Your task to perform on an android device: Show me popular videos on Youtube Image 0: 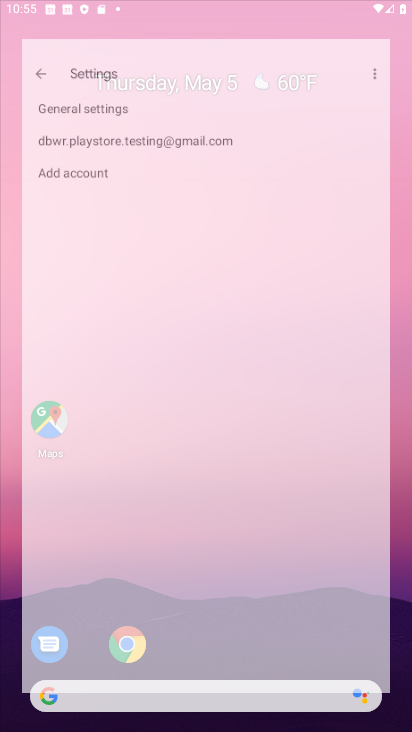
Step 0: drag from (219, 662) to (220, 5)
Your task to perform on an android device: Show me popular videos on Youtube Image 1: 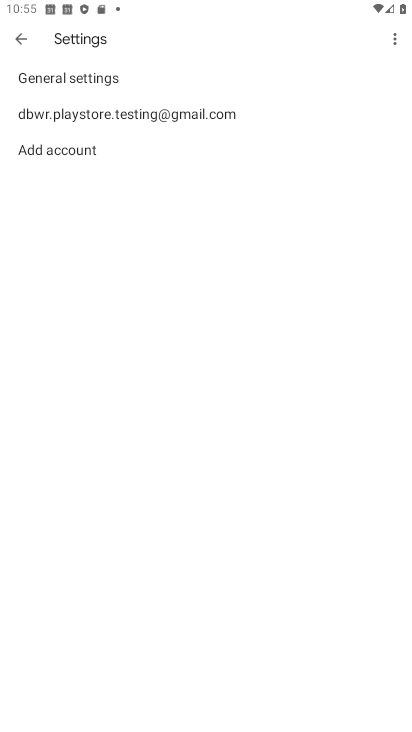
Step 1: press home button
Your task to perform on an android device: Show me popular videos on Youtube Image 2: 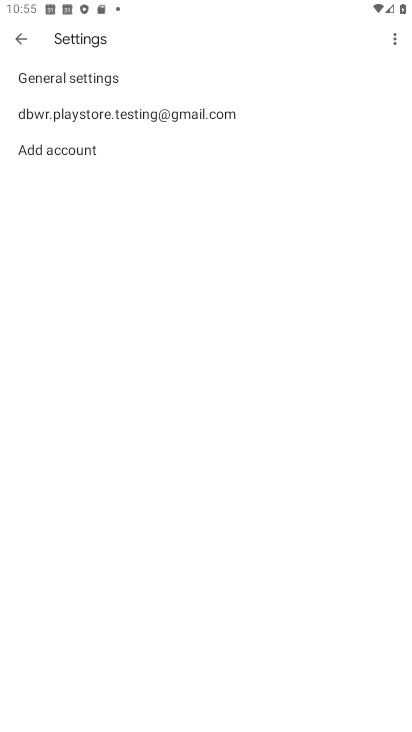
Step 2: press home button
Your task to perform on an android device: Show me popular videos on Youtube Image 3: 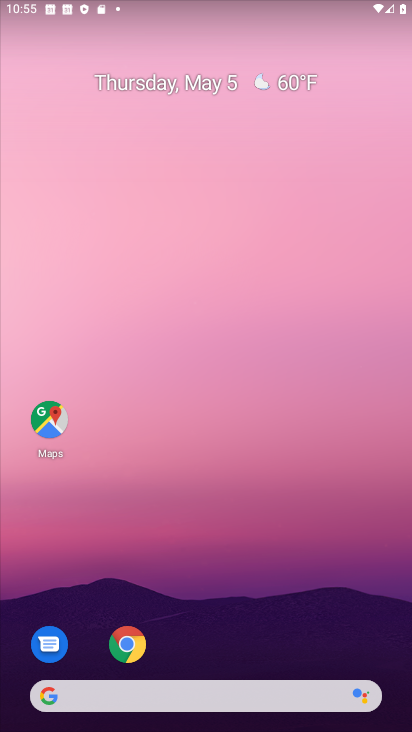
Step 3: drag from (191, 644) to (223, 36)
Your task to perform on an android device: Show me popular videos on Youtube Image 4: 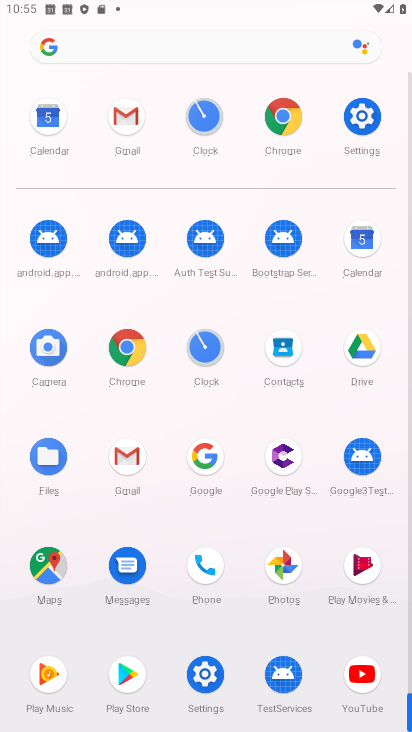
Step 4: click (366, 673)
Your task to perform on an android device: Show me popular videos on Youtube Image 5: 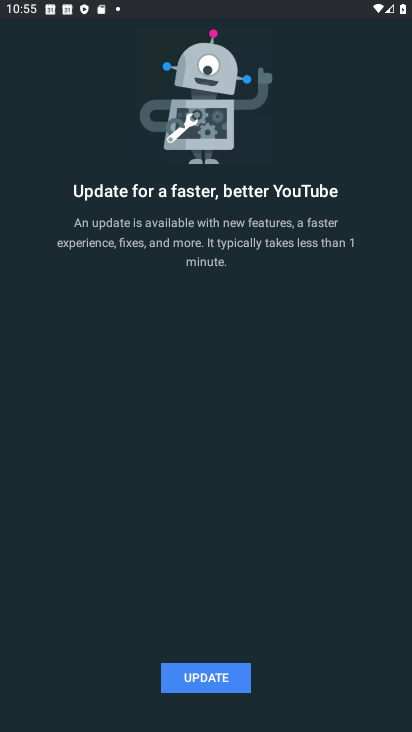
Step 5: press home button
Your task to perform on an android device: Show me popular videos on Youtube Image 6: 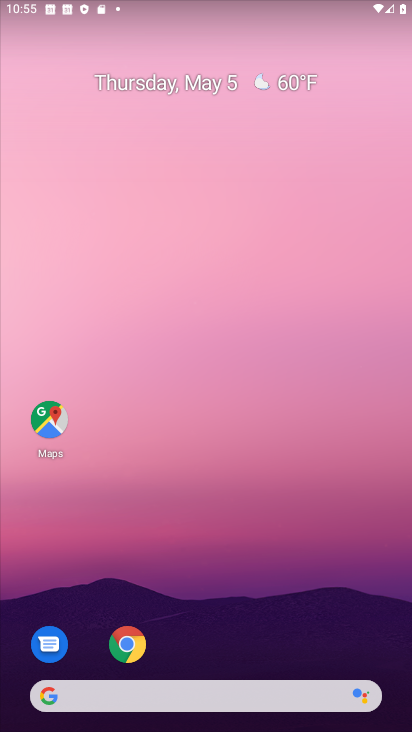
Step 6: drag from (205, 666) to (278, 74)
Your task to perform on an android device: Show me popular videos on Youtube Image 7: 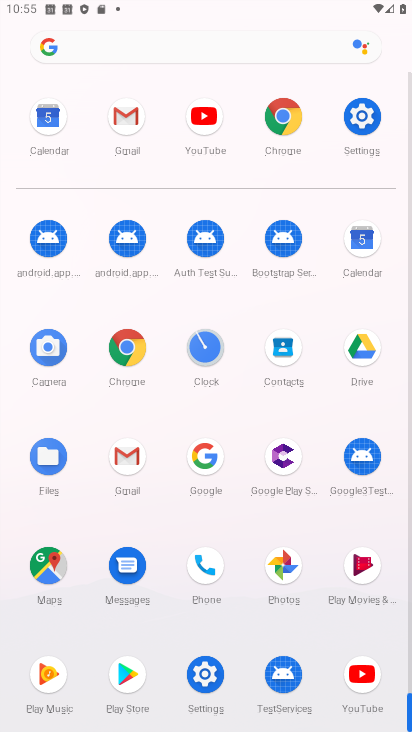
Step 7: click (361, 672)
Your task to perform on an android device: Show me popular videos on Youtube Image 8: 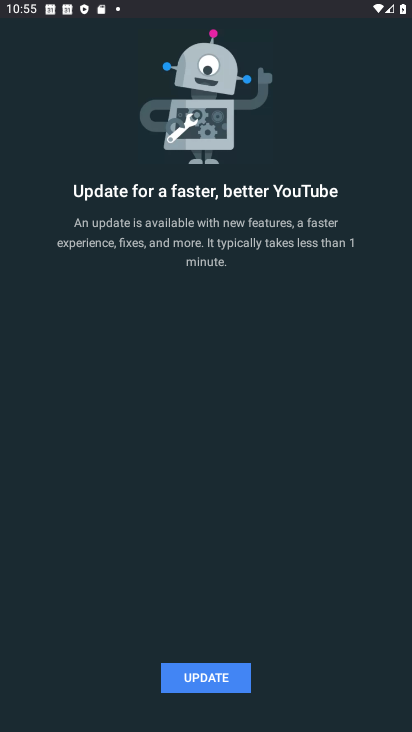
Step 8: click (217, 683)
Your task to perform on an android device: Show me popular videos on Youtube Image 9: 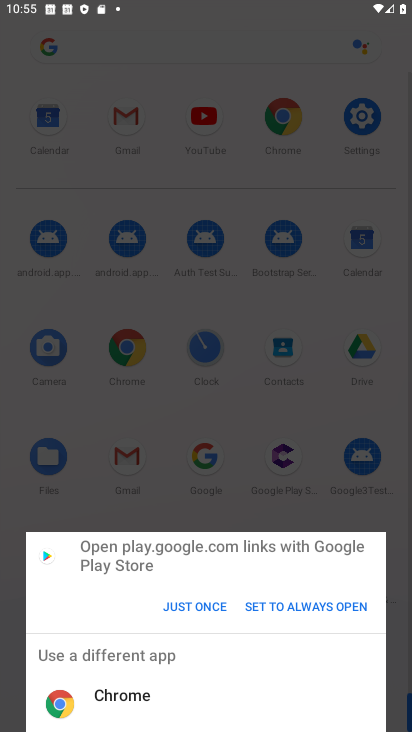
Step 9: click (109, 559)
Your task to perform on an android device: Show me popular videos on Youtube Image 10: 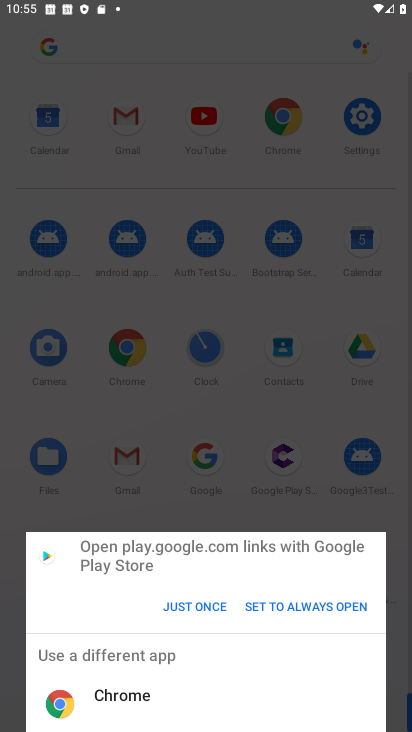
Step 10: click (281, 601)
Your task to perform on an android device: Show me popular videos on Youtube Image 11: 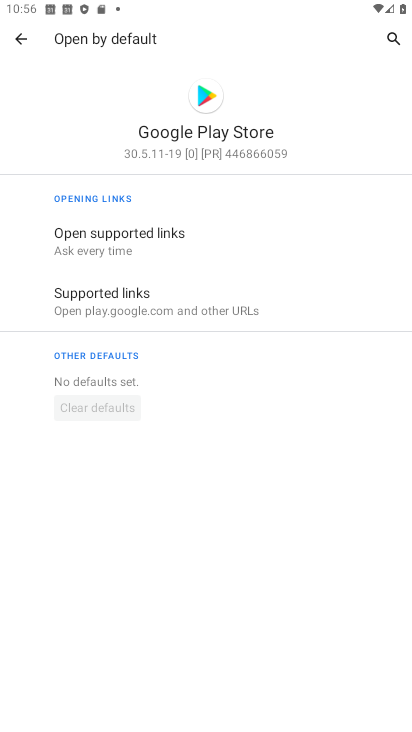
Step 11: drag from (202, 498) to (266, 26)
Your task to perform on an android device: Show me popular videos on Youtube Image 12: 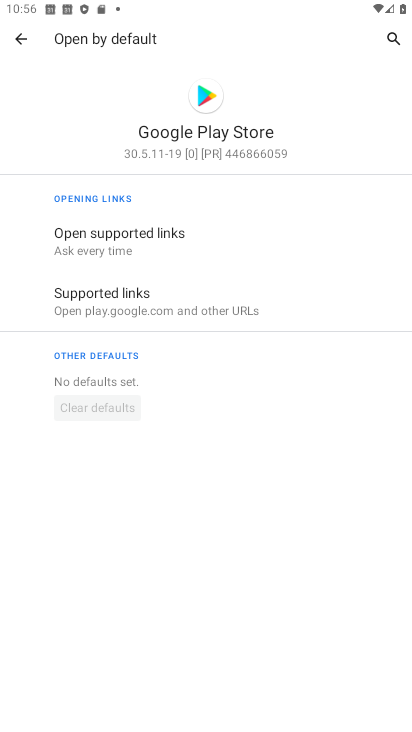
Step 12: drag from (181, 541) to (211, 254)
Your task to perform on an android device: Show me popular videos on Youtube Image 13: 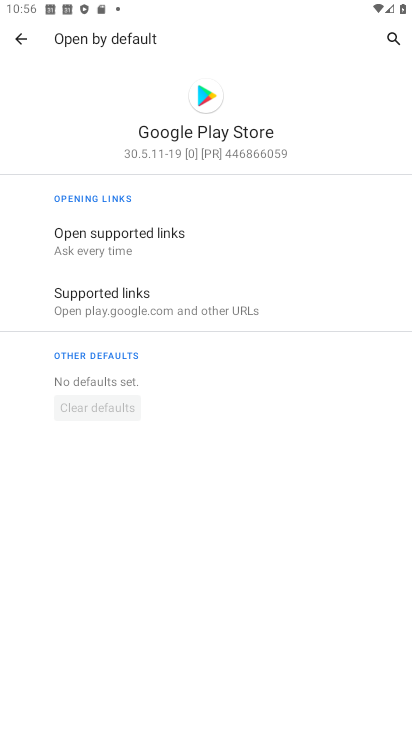
Step 13: drag from (161, 436) to (219, 223)
Your task to perform on an android device: Show me popular videos on Youtube Image 14: 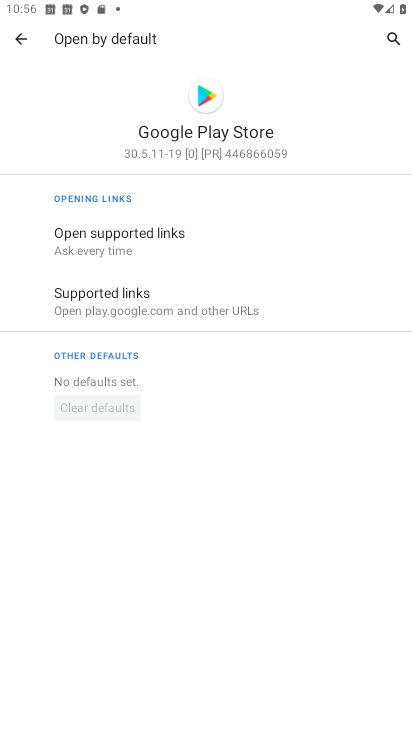
Step 14: drag from (268, 514) to (275, 245)
Your task to perform on an android device: Show me popular videos on Youtube Image 15: 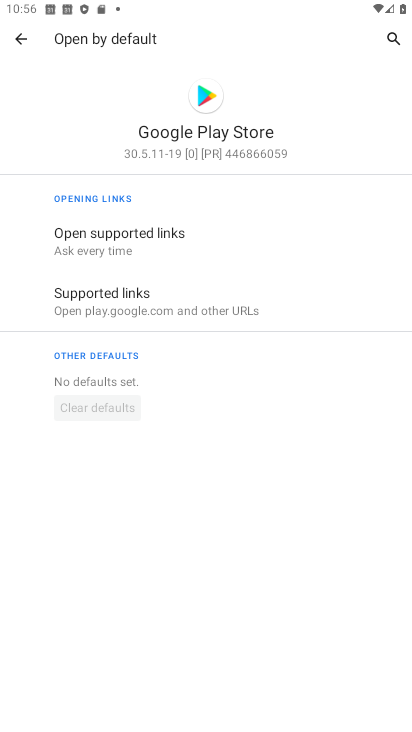
Step 15: press home button
Your task to perform on an android device: Show me popular videos on Youtube Image 16: 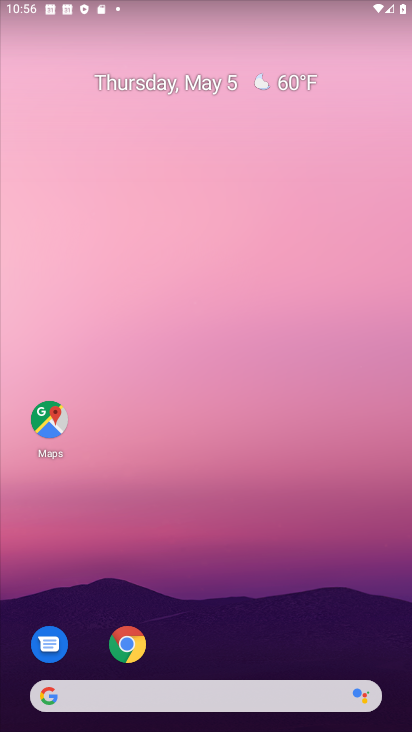
Step 16: drag from (178, 656) to (252, 50)
Your task to perform on an android device: Show me popular videos on Youtube Image 17: 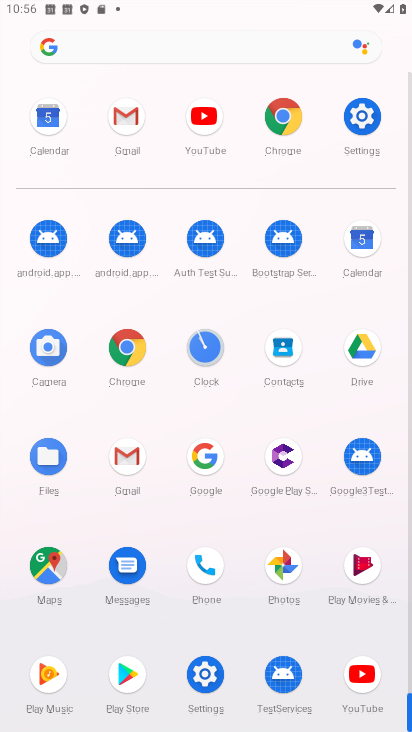
Step 17: click (355, 671)
Your task to perform on an android device: Show me popular videos on Youtube Image 18: 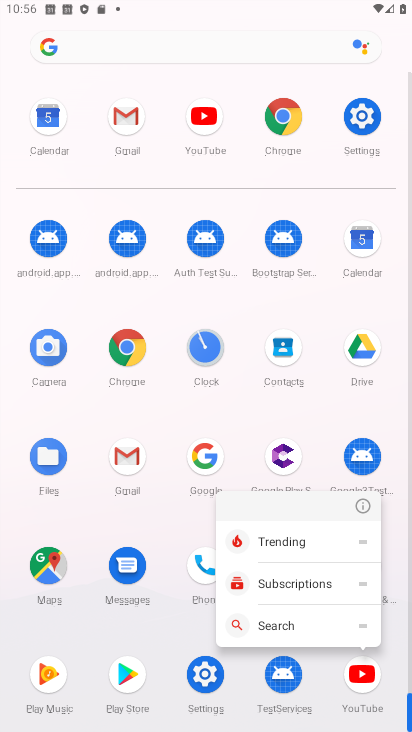
Step 18: click (363, 507)
Your task to perform on an android device: Show me popular videos on Youtube Image 19: 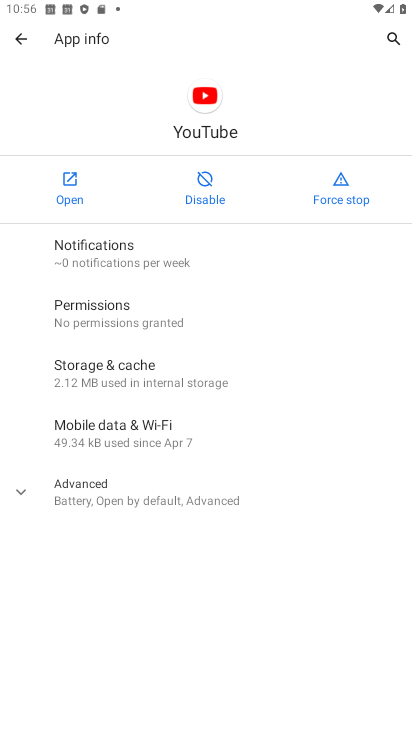
Step 19: click (63, 203)
Your task to perform on an android device: Show me popular videos on Youtube Image 20: 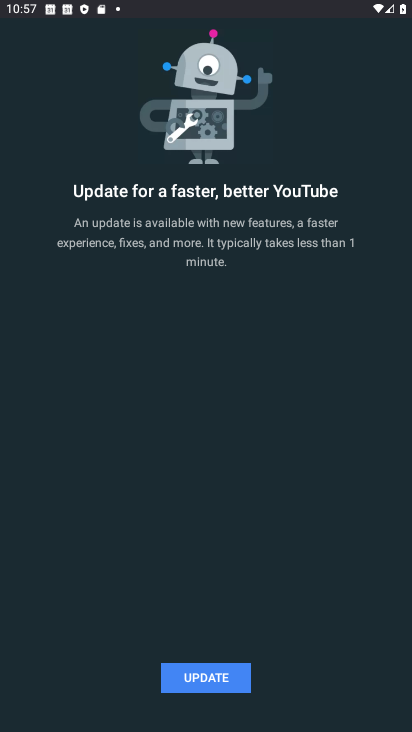
Step 20: click (204, 690)
Your task to perform on an android device: Show me popular videos on Youtube Image 21: 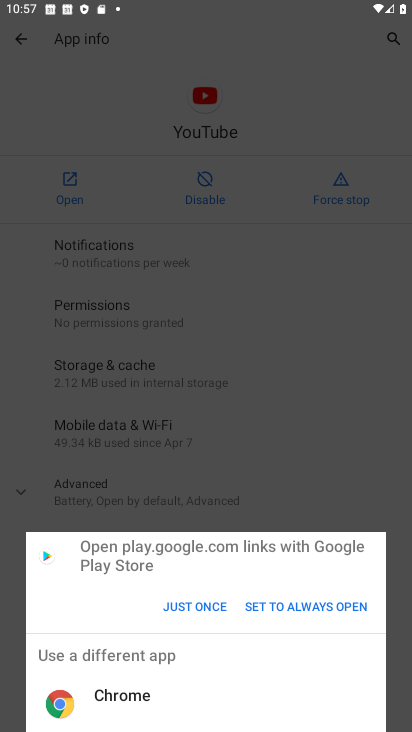
Step 21: click (293, 608)
Your task to perform on an android device: Show me popular videos on Youtube Image 22: 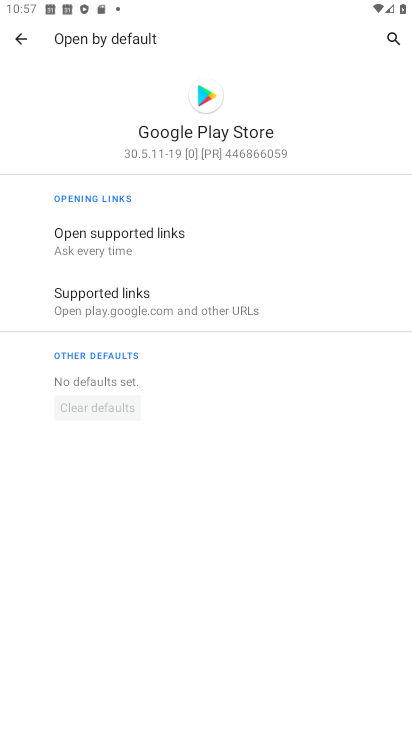
Step 22: click (166, 232)
Your task to perform on an android device: Show me popular videos on Youtube Image 23: 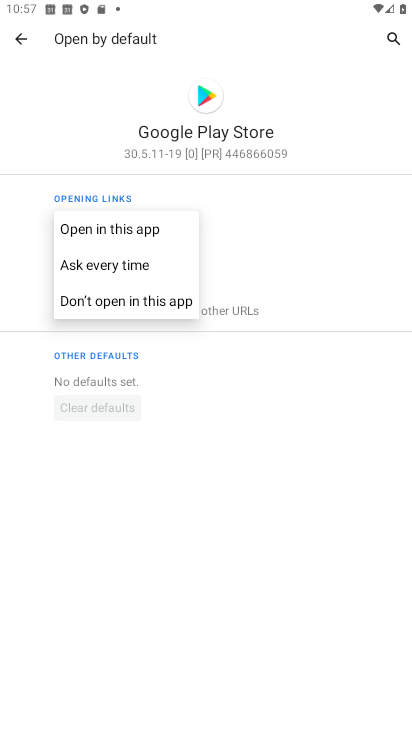
Step 23: click (330, 240)
Your task to perform on an android device: Show me popular videos on Youtube Image 24: 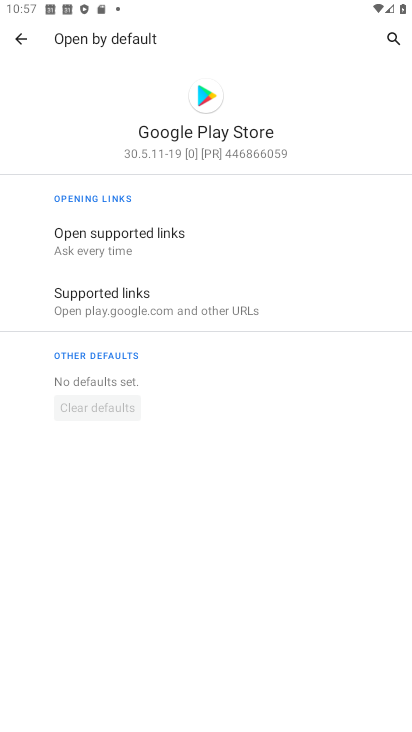
Step 24: click (237, 294)
Your task to perform on an android device: Show me popular videos on Youtube Image 25: 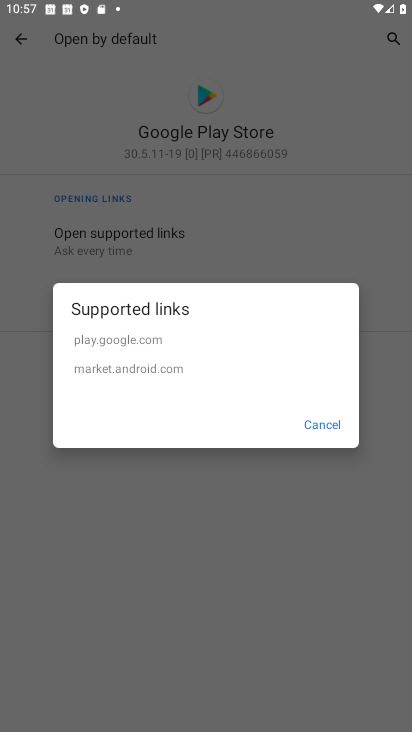
Step 25: click (300, 431)
Your task to perform on an android device: Show me popular videos on Youtube Image 26: 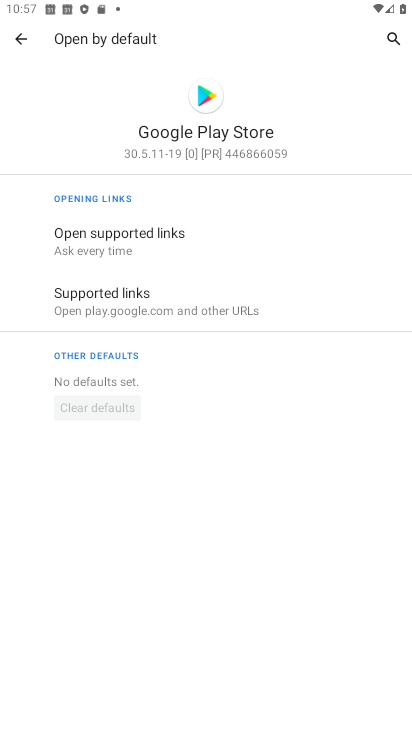
Step 26: task complete